Your task to perform on an android device: Is it going to rain this weekend? Image 0: 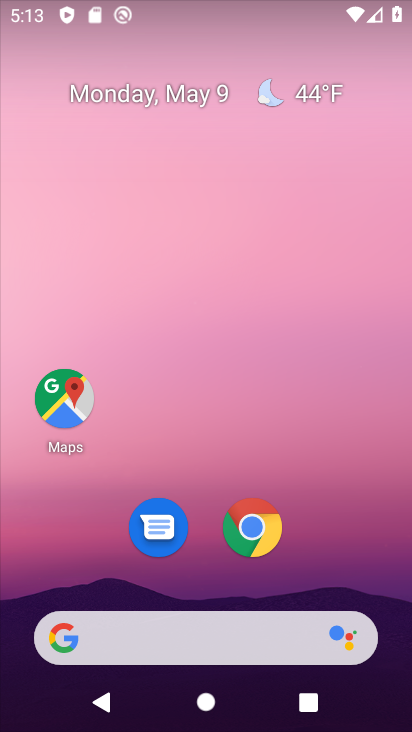
Step 0: drag from (359, 534) to (313, 46)
Your task to perform on an android device: Is it going to rain this weekend? Image 1: 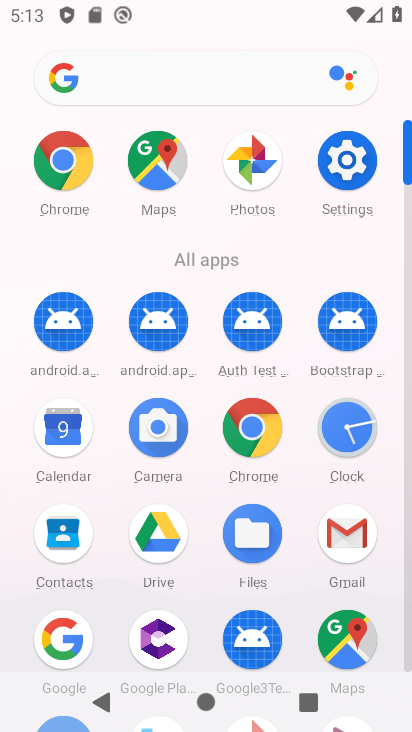
Step 1: drag from (12, 610) to (14, 321)
Your task to perform on an android device: Is it going to rain this weekend? Image 2: 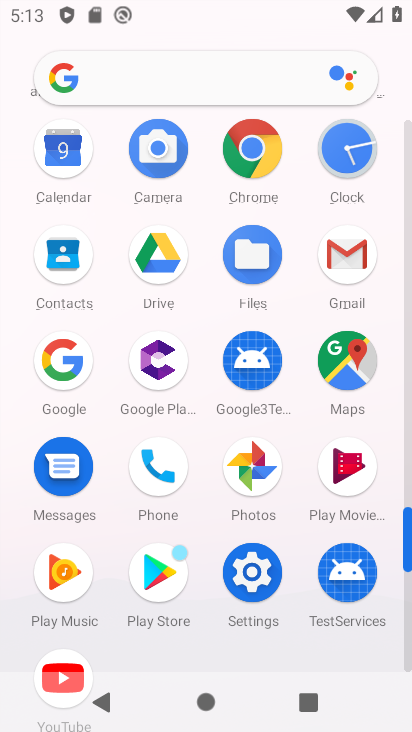
Step 2: drag from (18, 538) to (14, 198)
Your task to perform on an android device: Is it going to rain this weekend? Image 3: 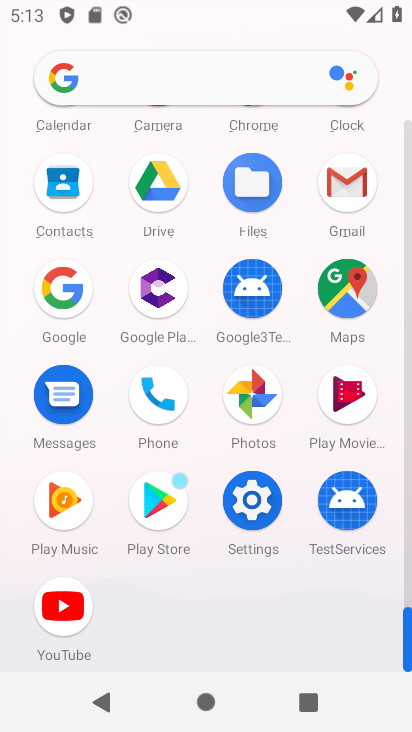
Step 3: drag from (2, 524) to (12, 216)
Your task to perform on an android device: Is it going to rain this weekend? Image 4: 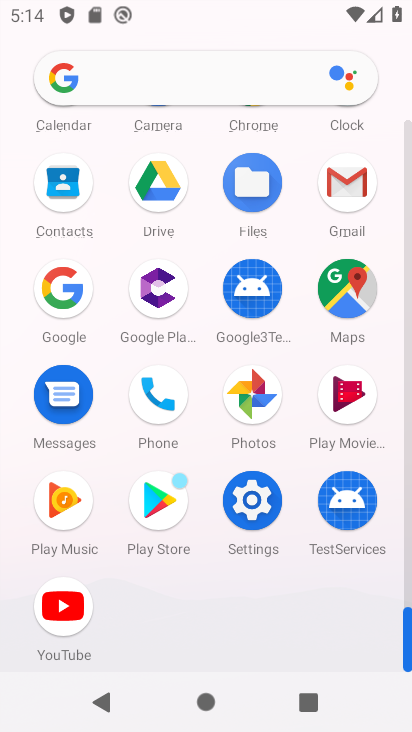
Step 4: drag from (99, 219) to (131, 512)
Your task to perform on an android device: Is it going to rain this weekend? Image 5: 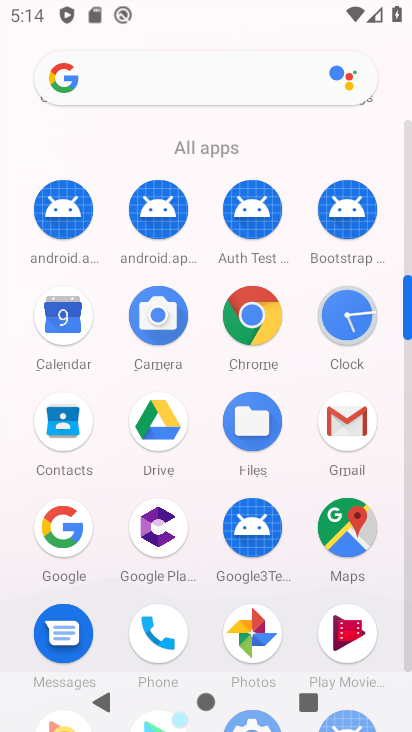
Step 5: click (254, 310)
Your task to perform on an android device: Is it going to rain this weekend? Image 6: 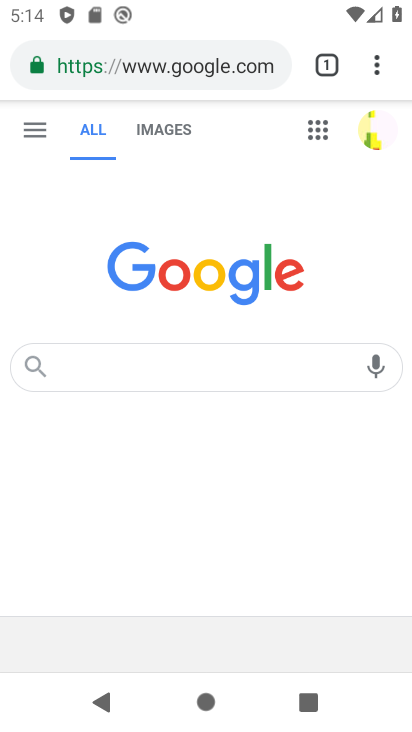
Step 6: click (164, 49)
Your task to perform on an android device: Is it going to rain this weekend? Image 7: 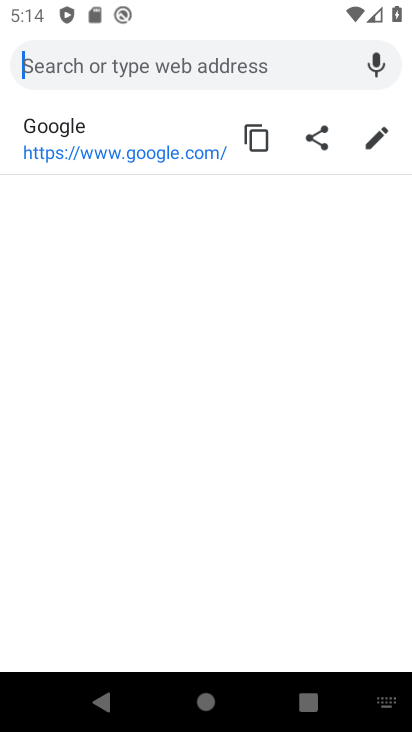
Step 7: type "Is it going to rain this weekend?"
Your task to perform on an android device: Is it going to rain this weekend? Image 8: 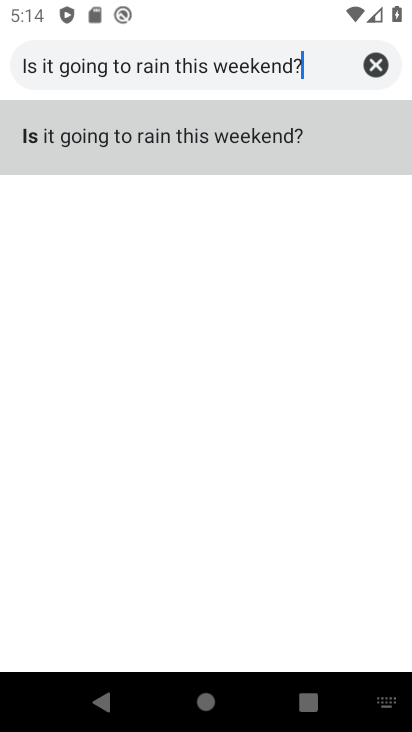
Step 8: type ""
Your task to perform on an android device: Is it going to rain this weekend? Image 9: 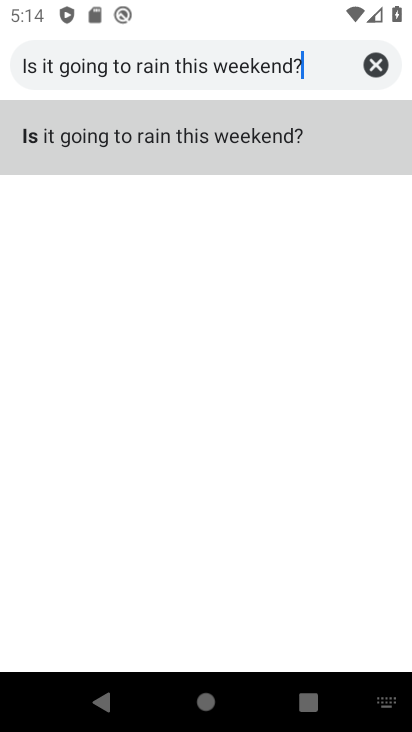
Step 9: click (210, 139)
Your task to perform on an android device: Is it going to rain this weekend? Image 10: 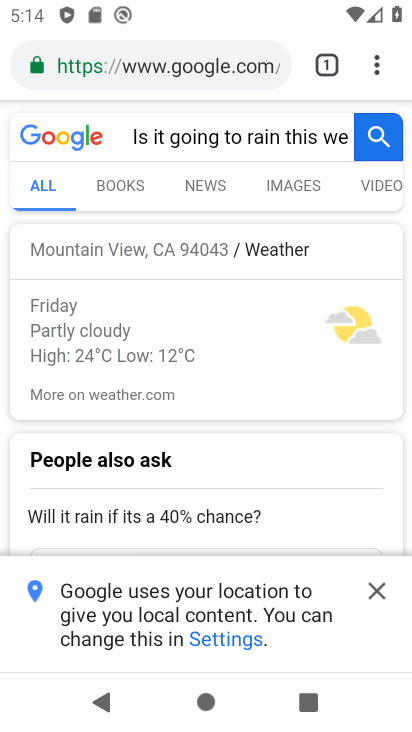
Step 10: task complete